Your task to perform on an android device: change keyboard looks Image 0: 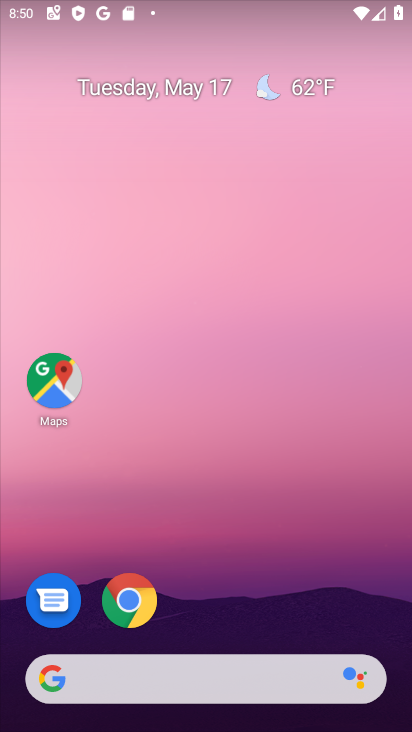
Step 0: drag from (237, 636) to (203, 92)
Your task to perform on an android device: change keyboard looks Image 1: 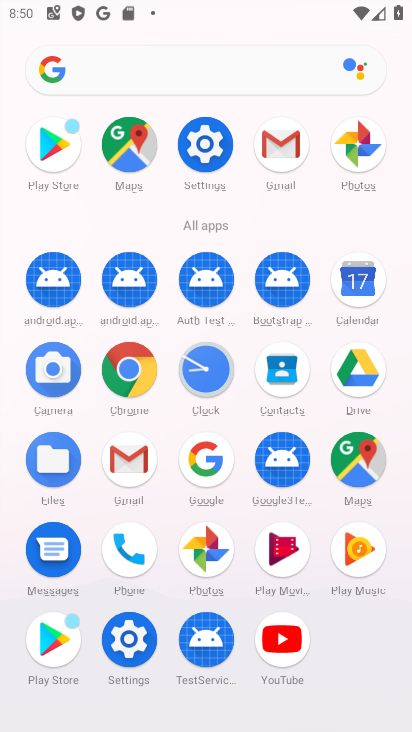
Step 1: click (207, 140)
Your task to perform on an android device: change keyboard looks Image 2: 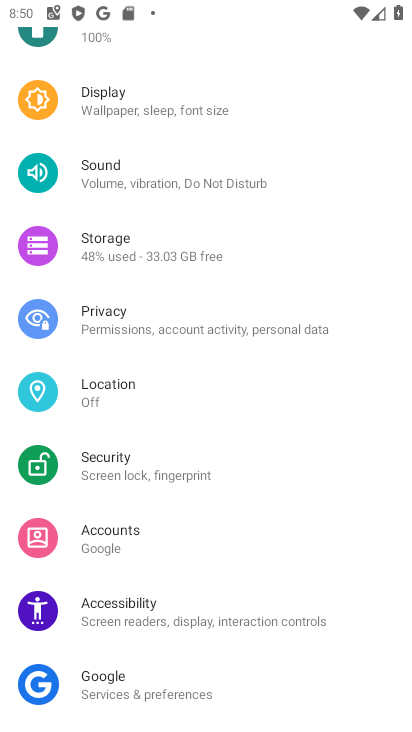
Step 2: drag from (241, 661) to (256, 329)
Your task to perform on an android device: change keyboard looks Image 3: 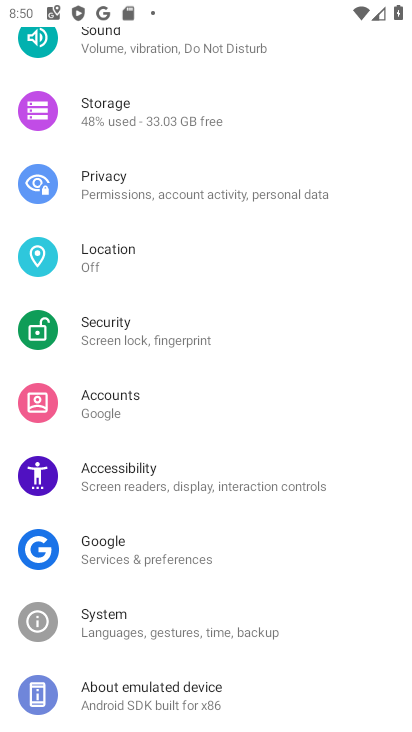
Step 3: click (120, 622)
Your task to perform on an android device: change keyboard looks Image 4: 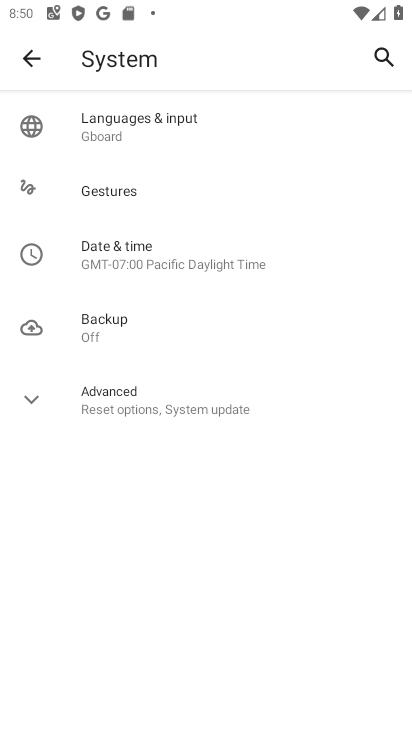
Step 4: click (111, 125)
Your task to perform on an android device: change keyboard looks Image 5: 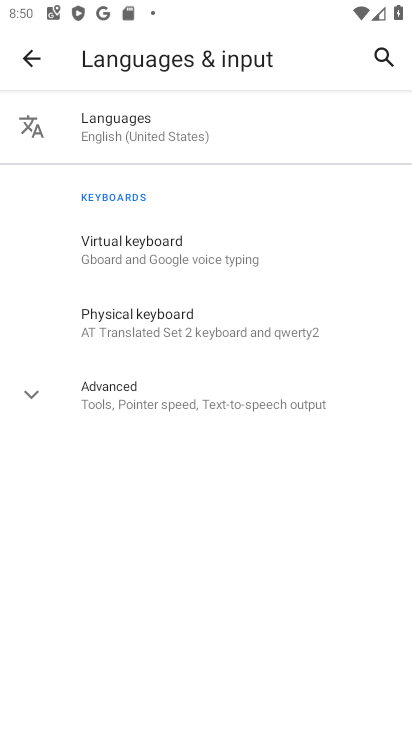
Step 5: click (130, 246)
Your task to perform on an android device: change keyboard looks Image 6: 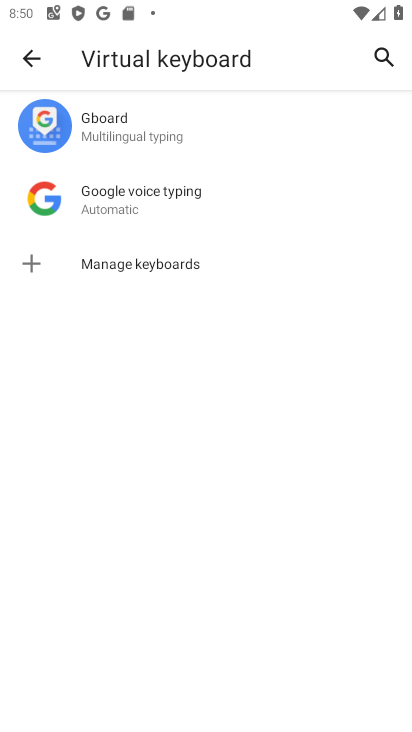
Step 6: click (113, 117)
Your task to perform on an android device: change keyboard looks Image 7: 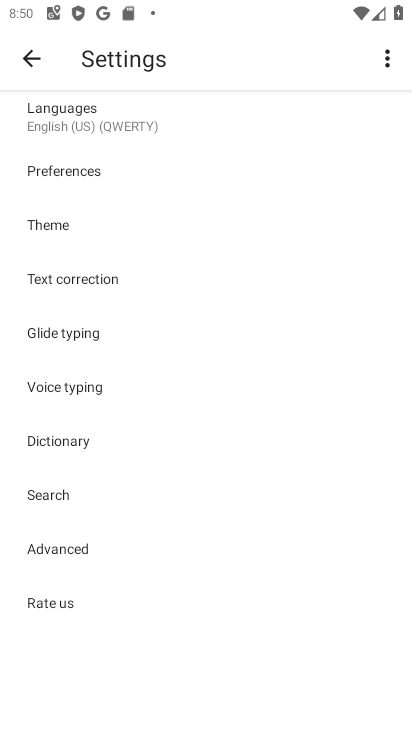
Step 7: click (48, 225)
Your task to perform on an android device: change keyboard looks Image 8: 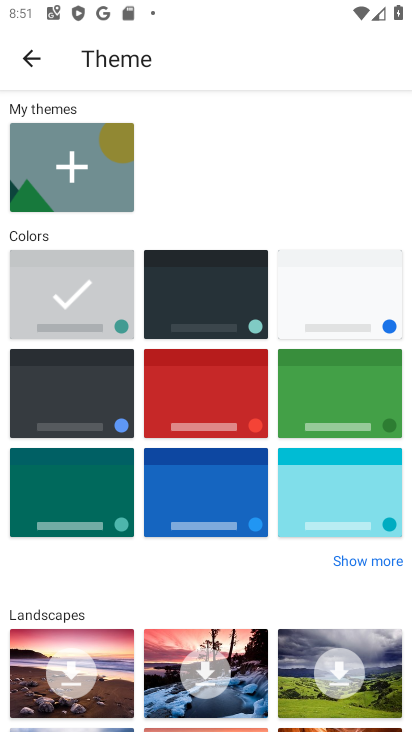
Step 8: click (189, 288)
Your task to perform on an android device: change keyboard looks Image 9: 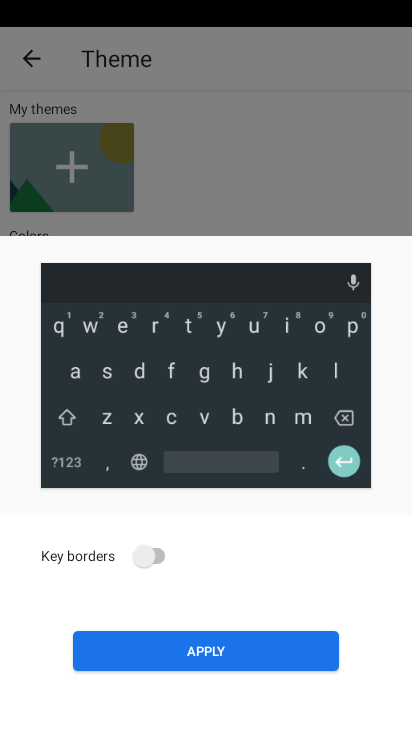
Step 9: click (162, 557)
Your task to perform on an android device: change keyboard looks Image 10: 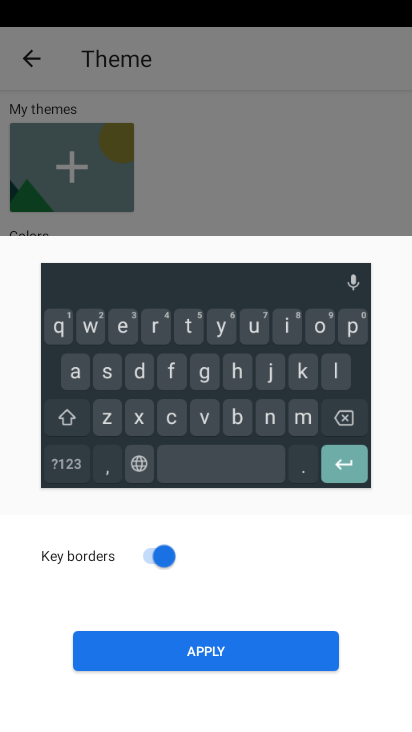
Step 10: click (211, 652)
Your task to perform on an android device: change keyboard looks Image 11: 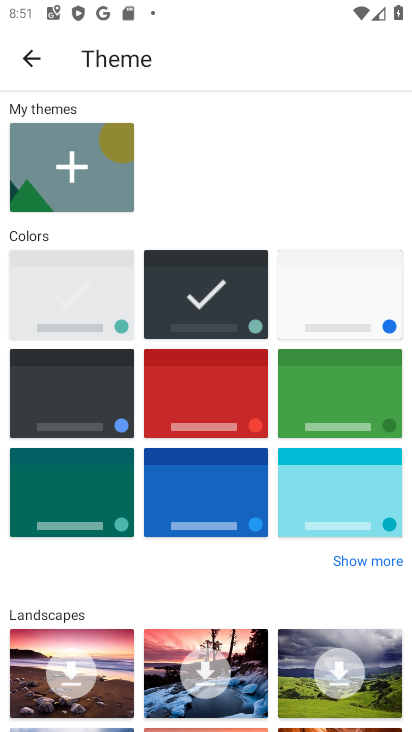
Step 11: click (211, 652)
Your task to perform on an android device: change keyboard looks Image 12: 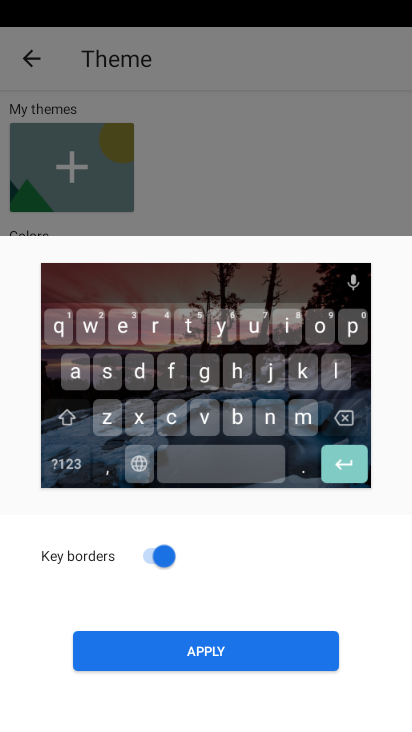
Step 12: task complete